Your task to perform on an android device: Open Youtube and go to the subscriptions tab Image 0: 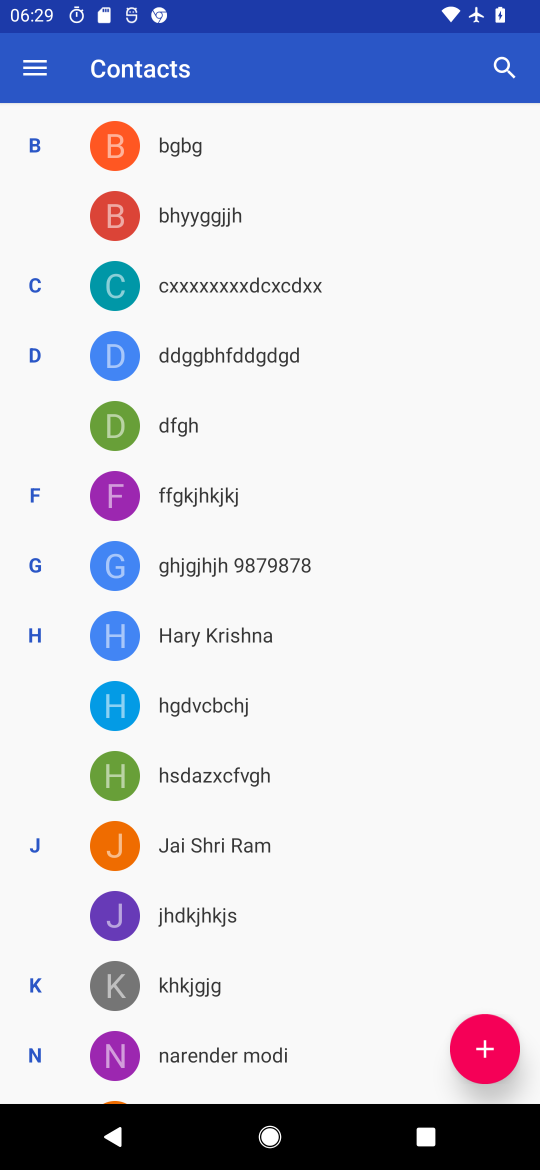
Step 0: press home button
Your task to perform on an android device: Open Youtube and go to the subscriptions tab Image 1: 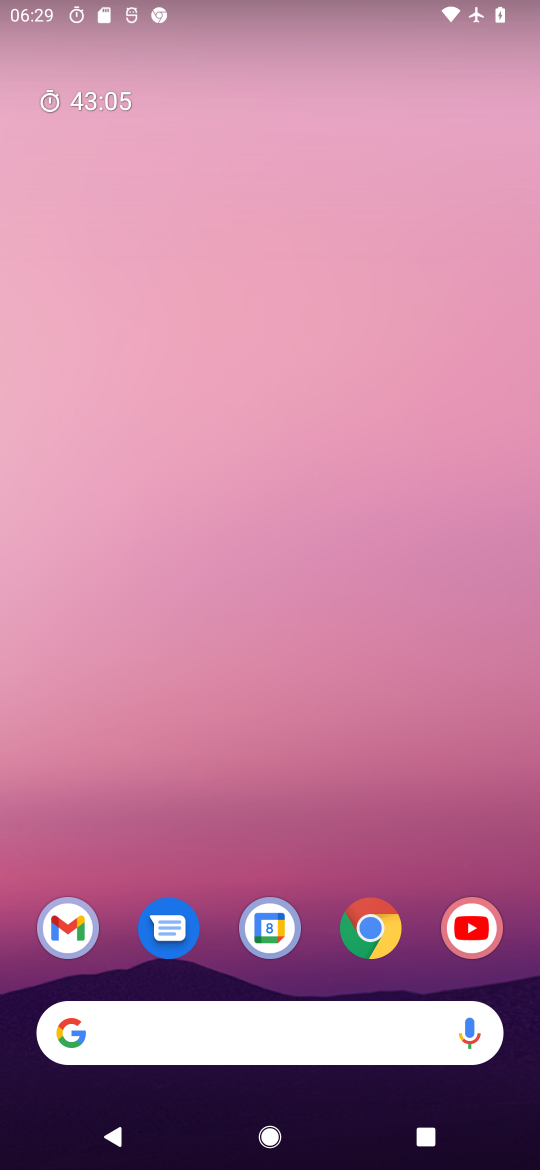
Step 1: drag from (256, 963) to (245, 131)
Your task to perform on an android device: Open Youtube and go to the subscriptions tab Image 2: 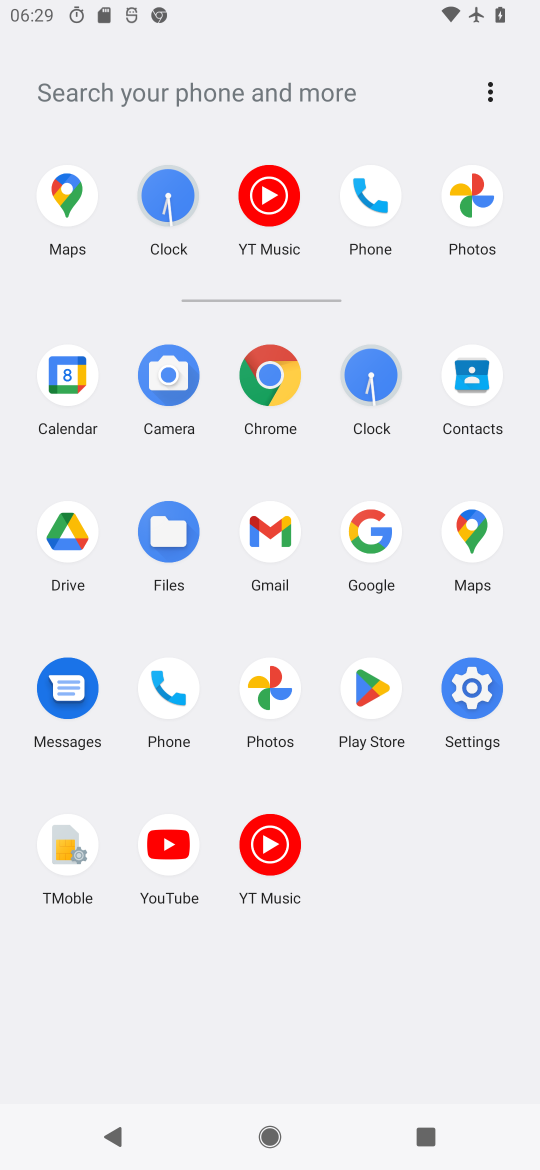
Step 2: click (157, 881)
Your task to perform on an android device: Open Youtube and go to the subscriptions tab Image 3: 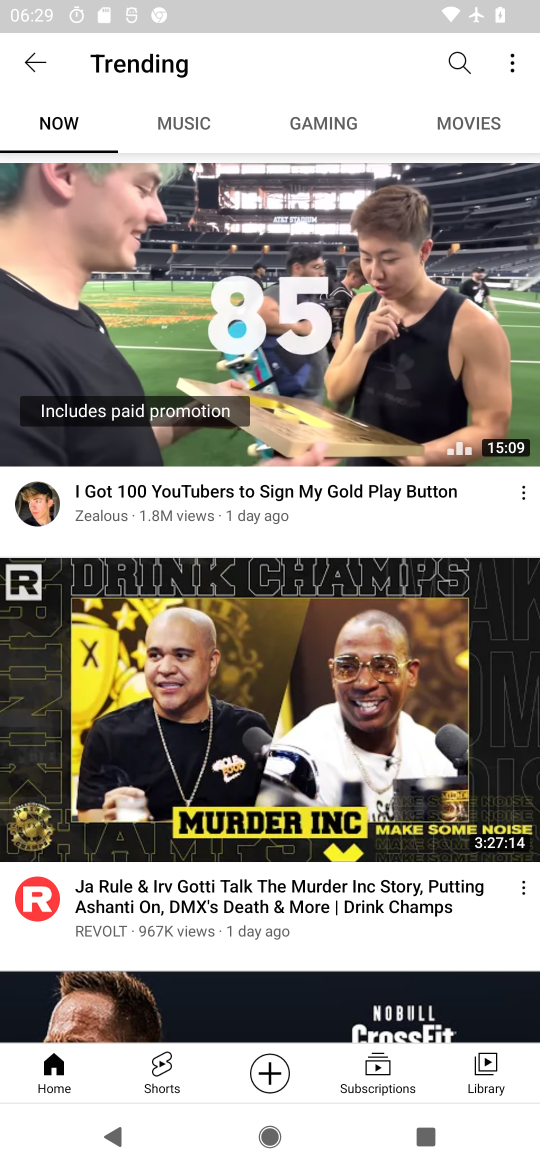
Step 3: click (372, 1071)
Your task to perform on an android device: Open Youtube and go to the subscriptions tab Image 4: 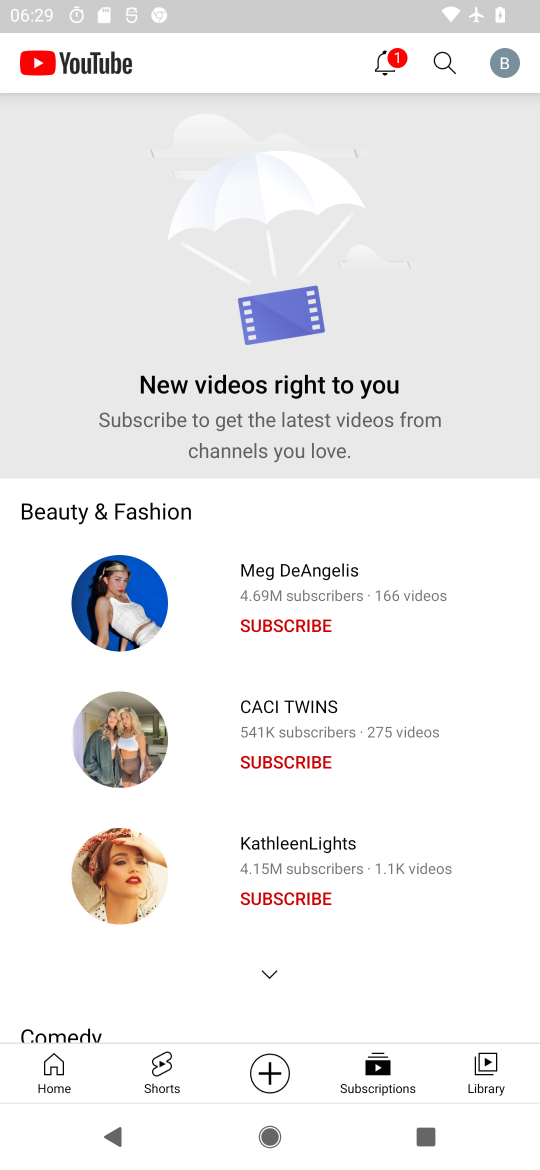
Step 4: task complete